Your task to perform on an android device: all mails in gmail Image 0: 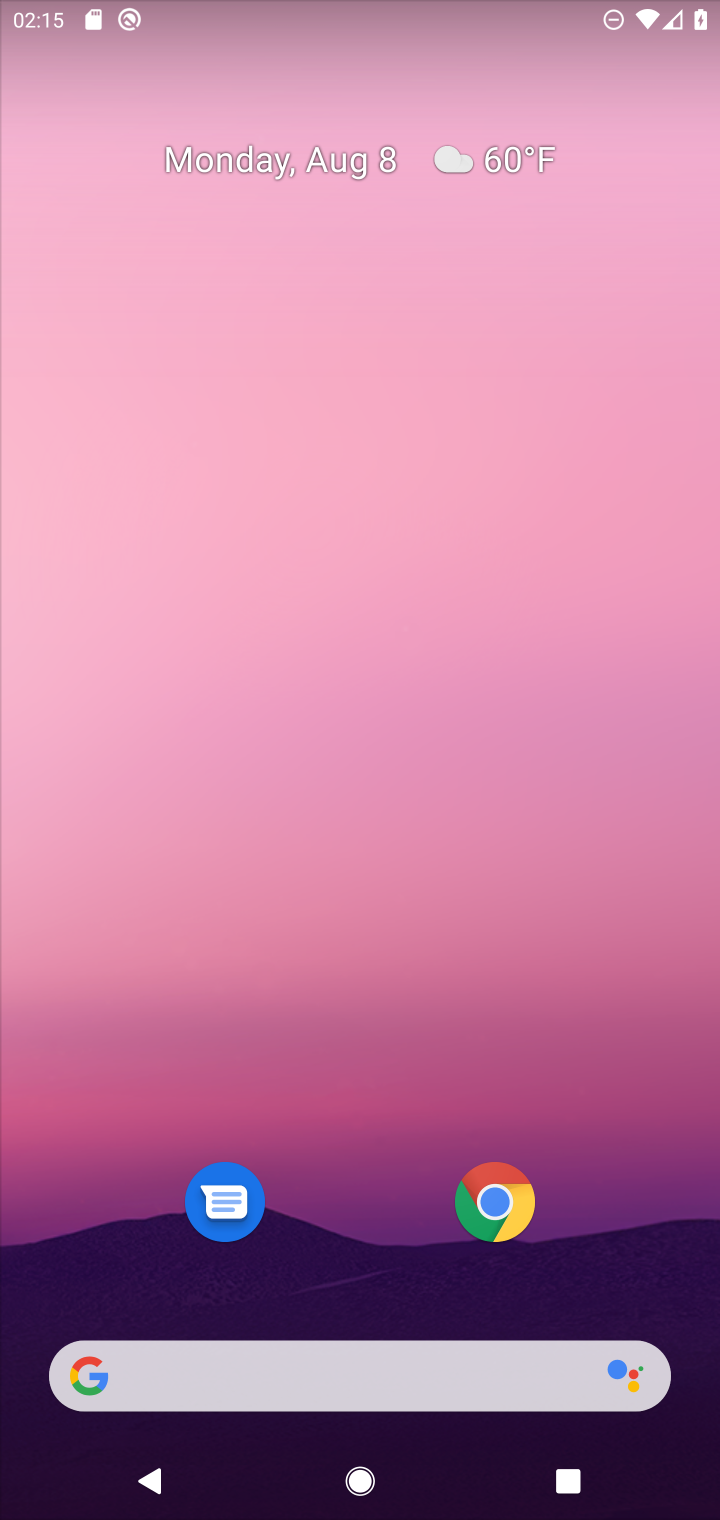
Step 0: press home button
Your task to perform on an android device: all mails in gmail Image 1: 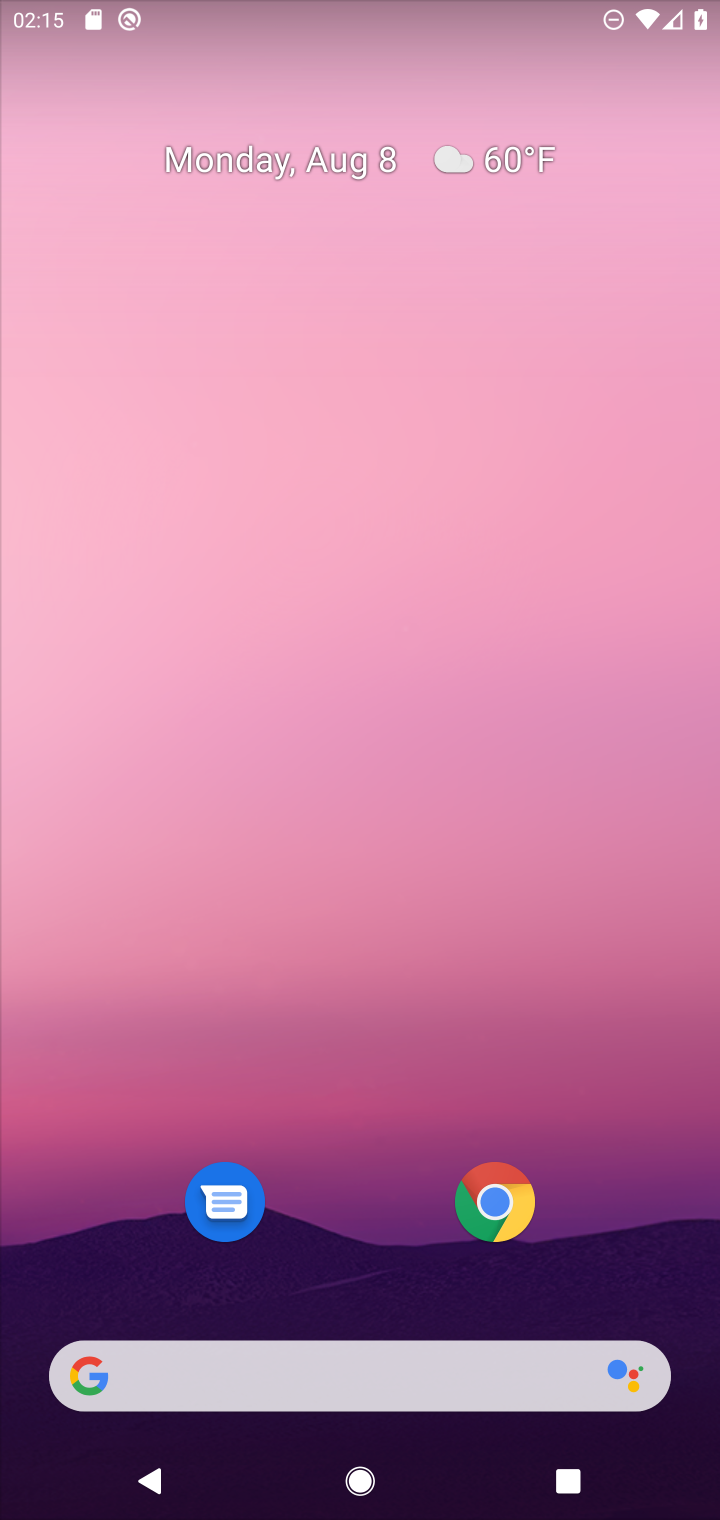
Step 1: drag from (419, 1279) to (444, 99)
Your task to perform on an android device: all mails in gmail Image 2: 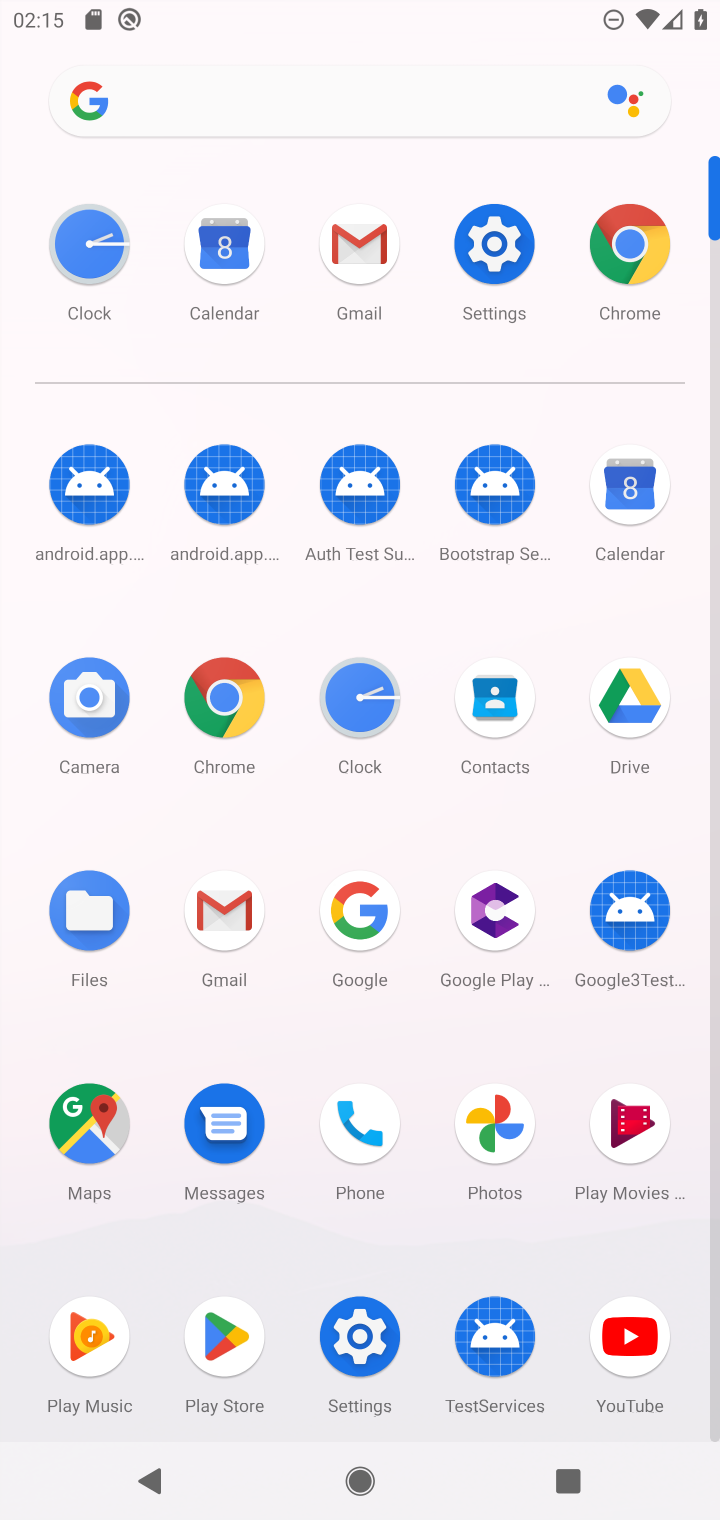
Step 2: click (208, 912)
Your task to perform on an android device: all mails in gmail Image 3: 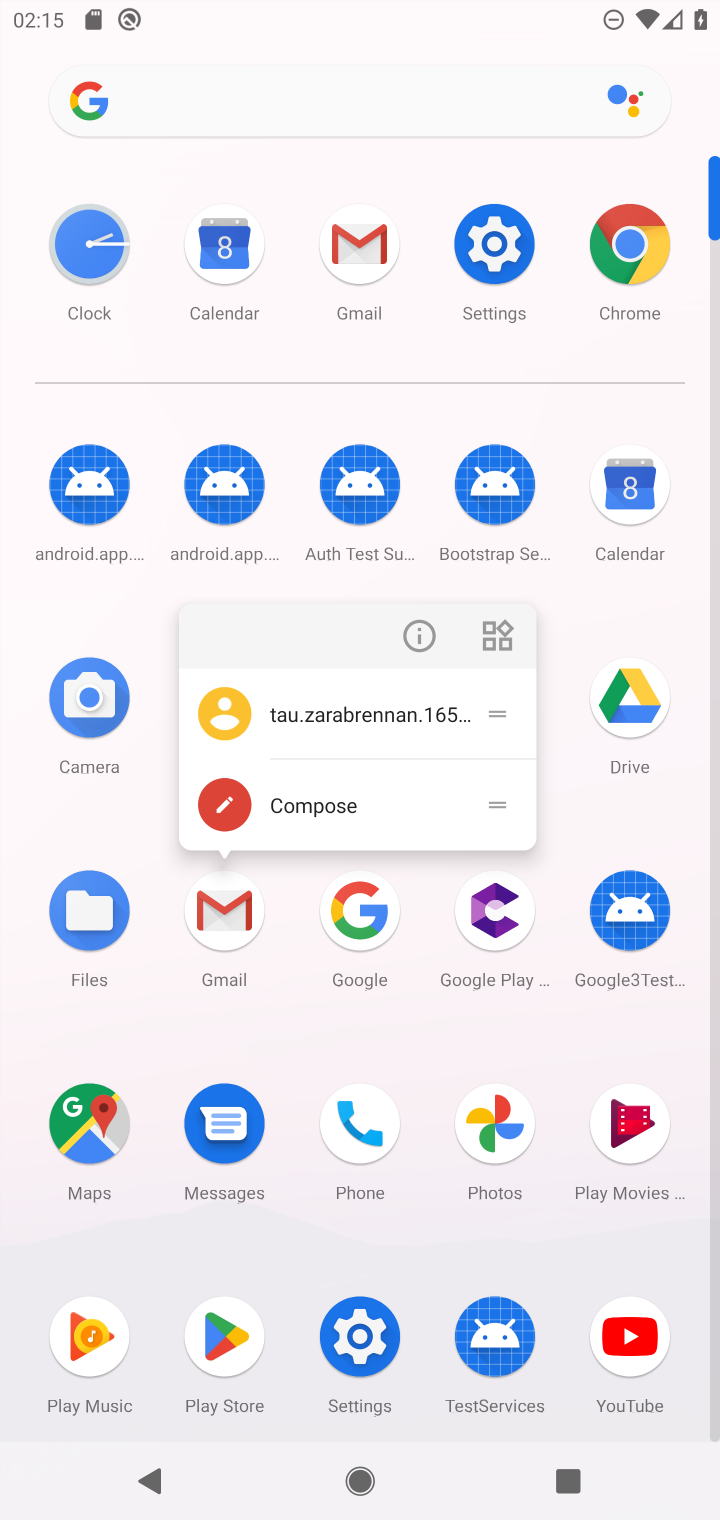
Step 3: click (221, 924)
Your task to perform on an android device: all mails in gmail Image 4: 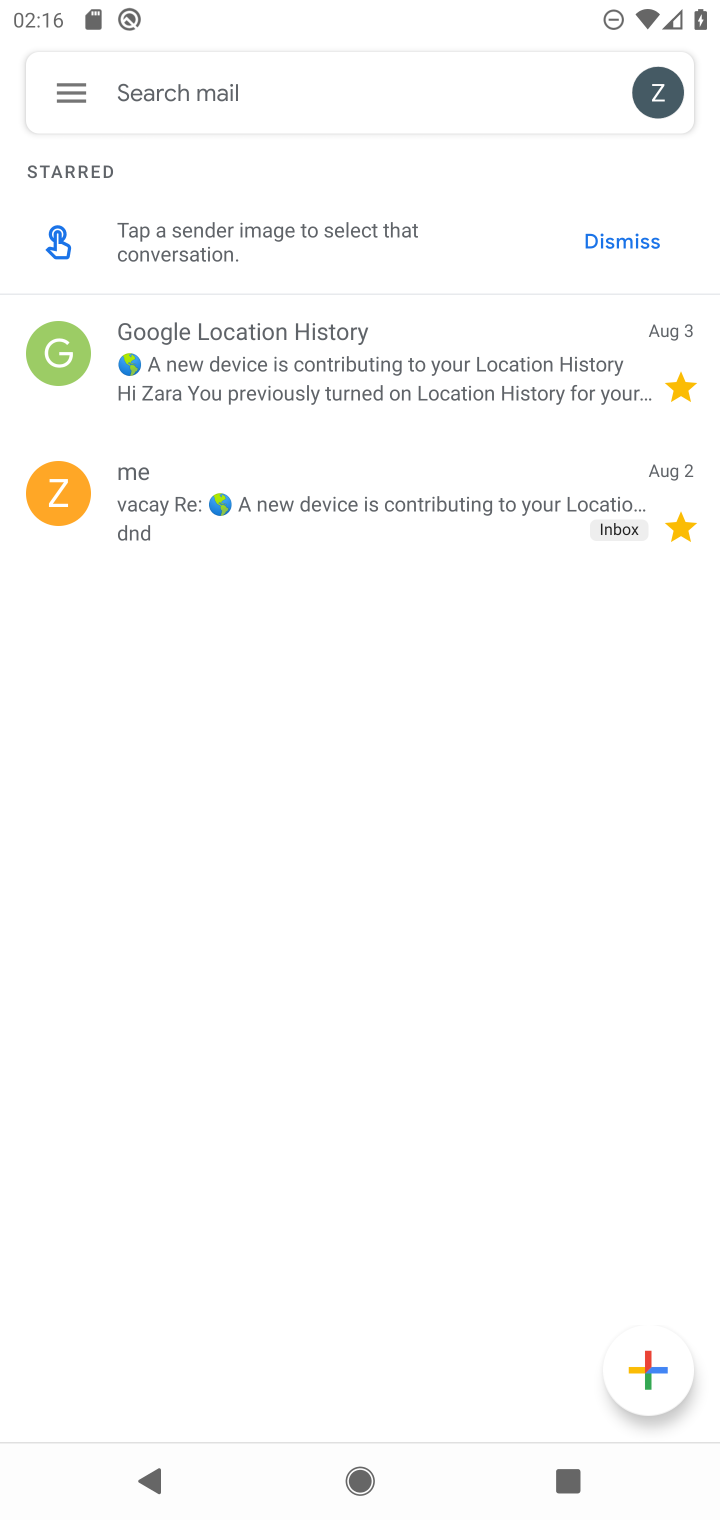
Step 4: click (69, 85)
Your task to perform on an android device: all mails in gmail Image 5: 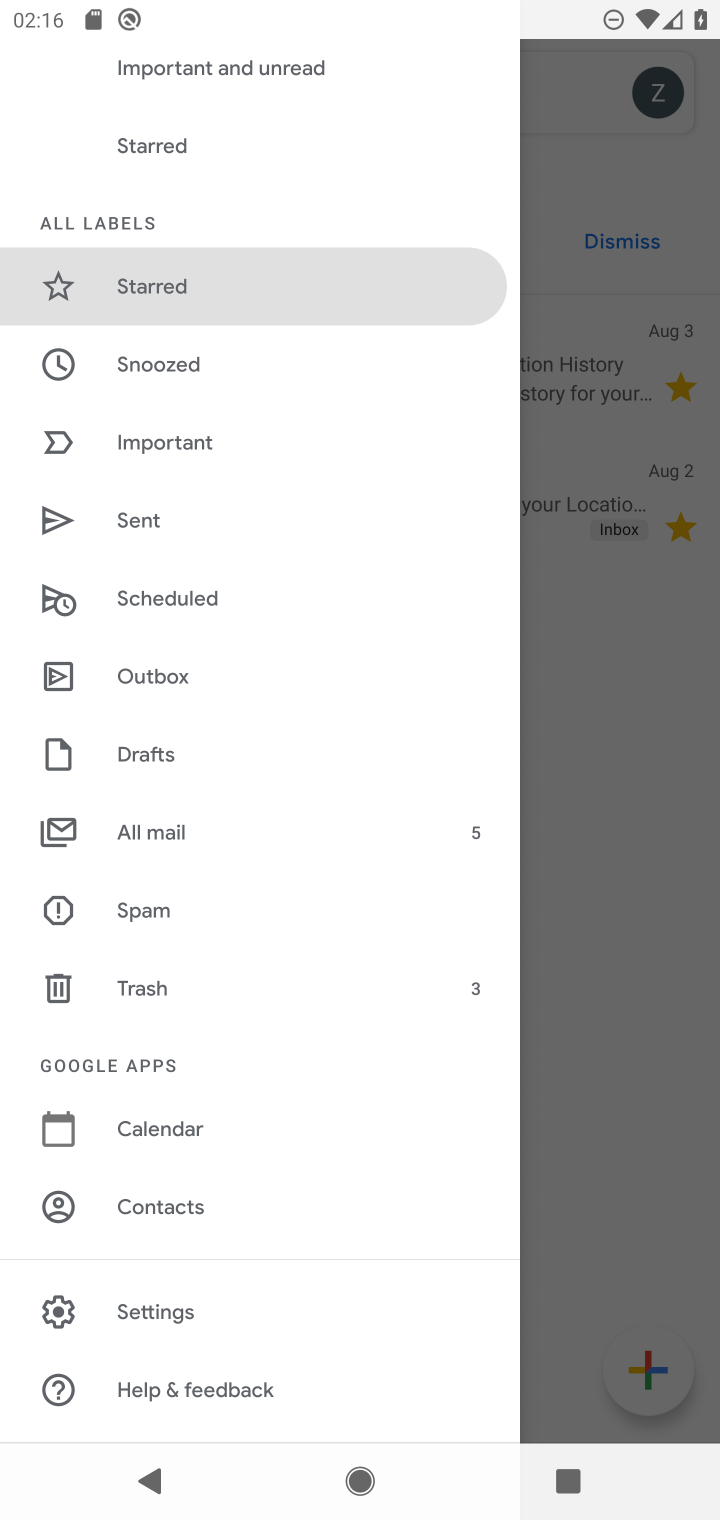
Step 5: click (197, 825)
Your task to perform on an android device: all mails in gmail Image 6: 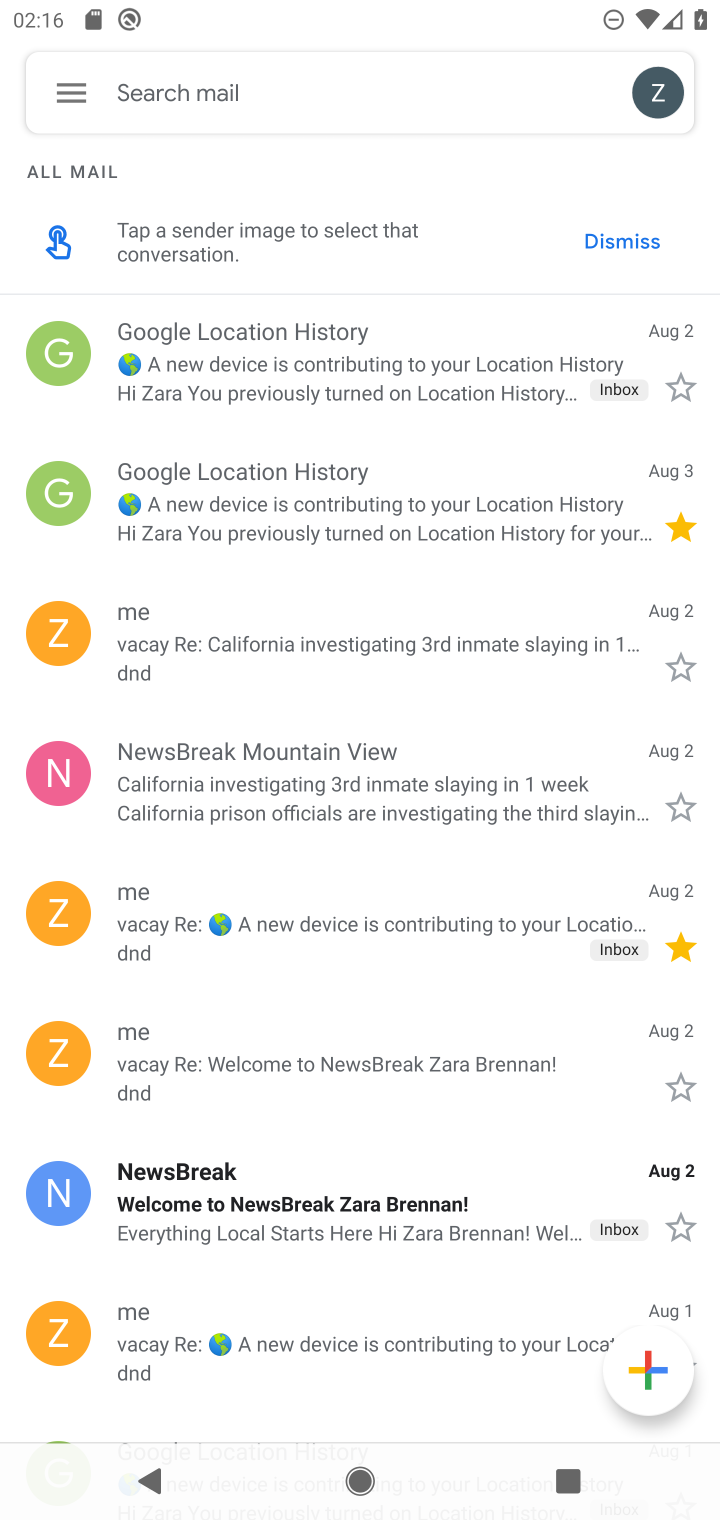
Step 6: task complete